Your task to perform on an android device: check google app version Image 0: 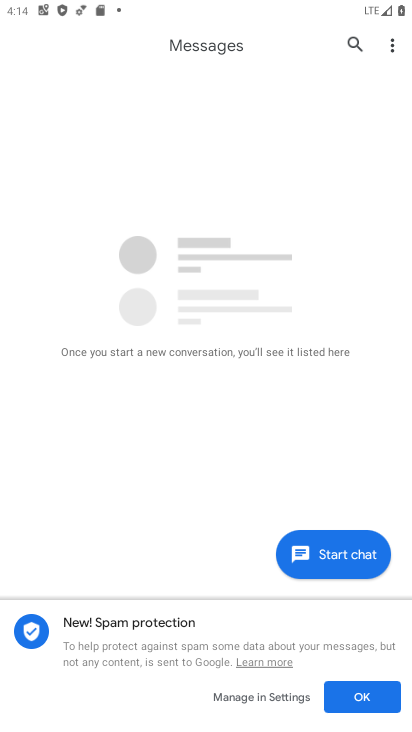
Step 0: press back button
Your task to perform on an android device: check google app version Image 1: 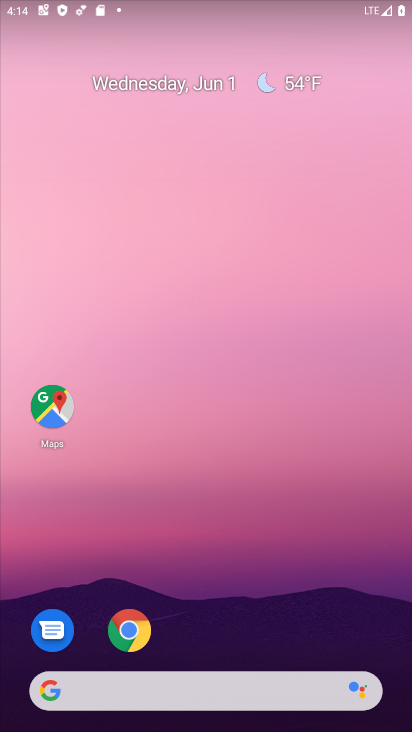
Step 1: drag from (229, 561) to (176, 15)
Your task to perform on an android device: check google app version Image 2: 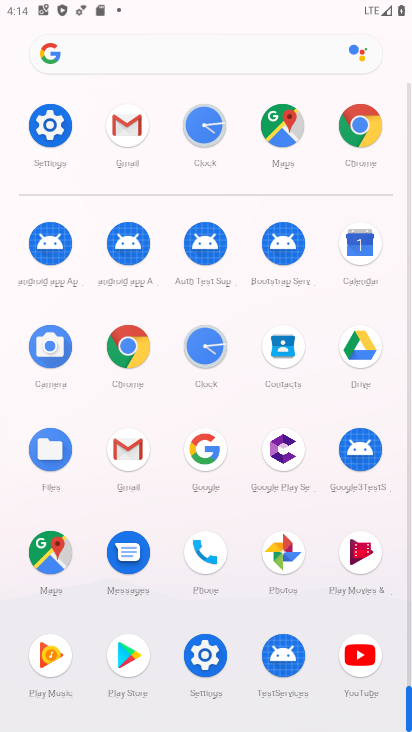
Step 2: click (200, 445)
Your task to perform on an android device: check google app version Image 3: 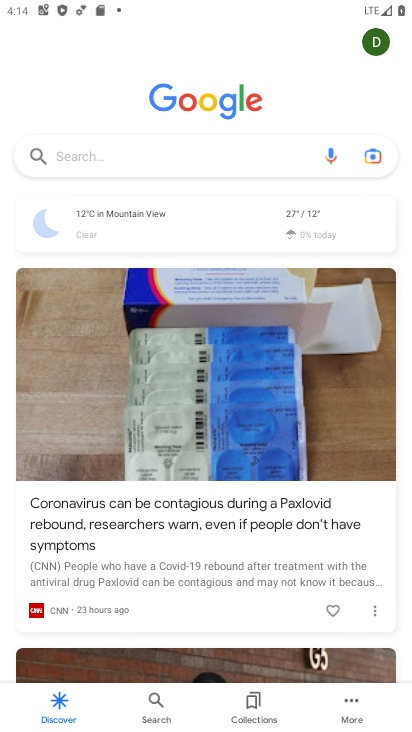
Step 3: click (348, 701)
Your task to perform on an android device: check google app version Image 4: 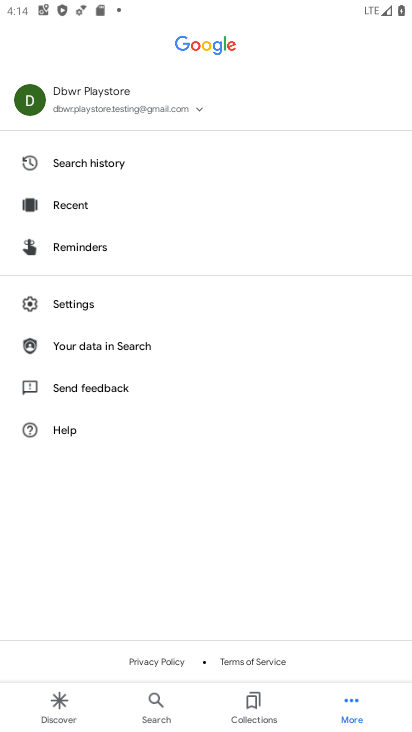
Step 4: click (84, 301)
Your task to perform on an android device: check google app version Image 5: 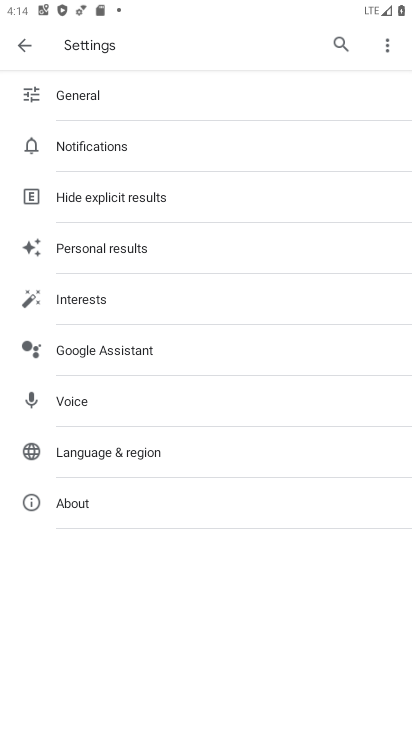
Step 5: click (92, 513)
Your task to perform on an android device: check google app version Image 6: 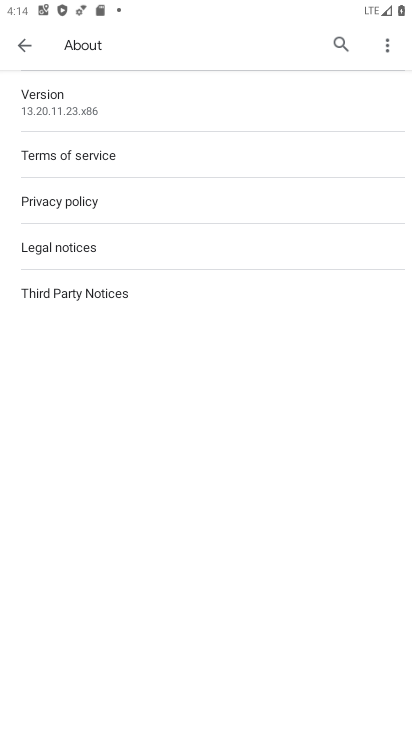
Step 6: click (111, 107)
Your task to perform on an android device: check google app version Image 7: 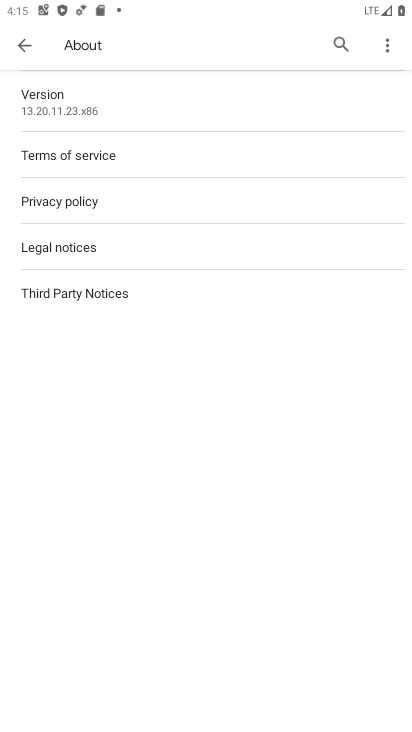
Step 7: task complete